Your task to perform on an android device: change the clock display to digital Image 0: 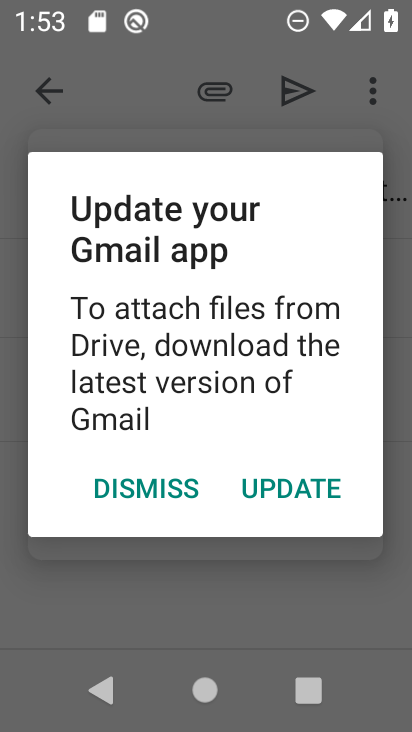
Step 0: press home button
Your task to perform on an android device: change the clock display to digital Image 1: 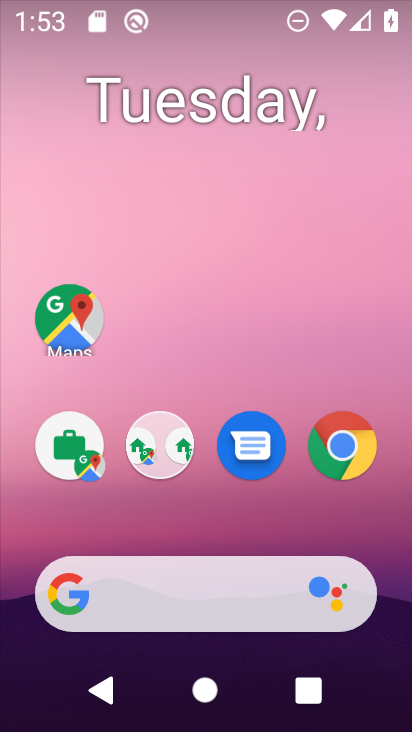
Step 1: drag from (183, 538) to (256, 128)
Your task to perform on an android device: change the clock display to digital Image 2: 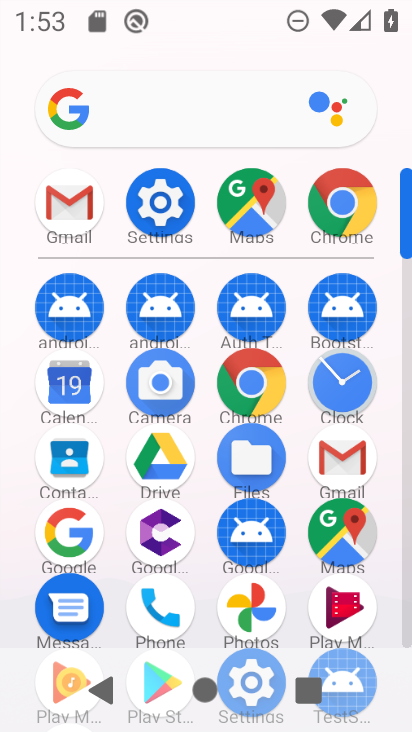
Step 2: click (346, 397)
Your task to perform on an android device: change the clock display to digital Image 3: 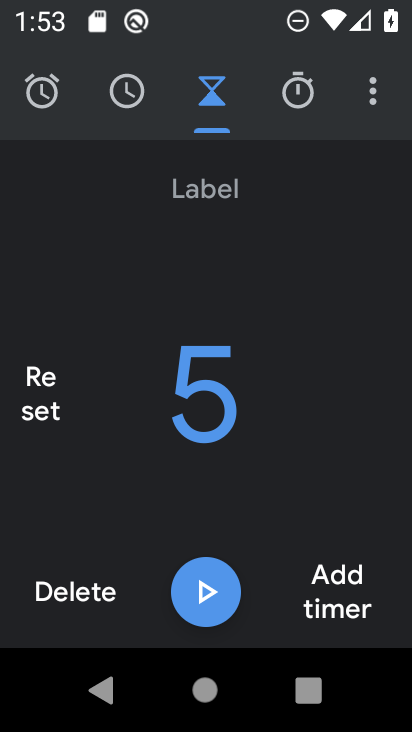
Step 3: click (369, 78)
Your task to perform on an android device: change the clock display to digital Image 4: 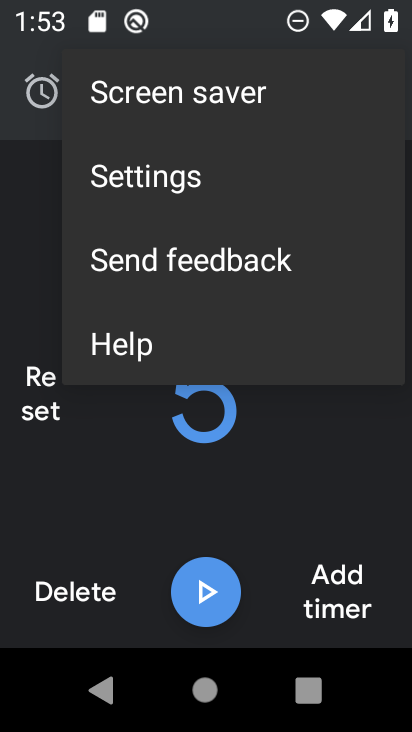
Step 4: click (215, 198)
Your task to perform on an android device: change the clock display to digital Image 5: 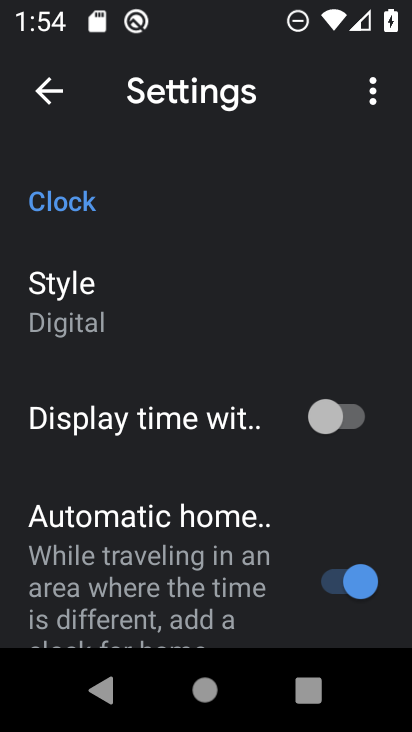
Step 5: task complete